Your task to perform on an android device: toggle translation in the chrome app Image 0: 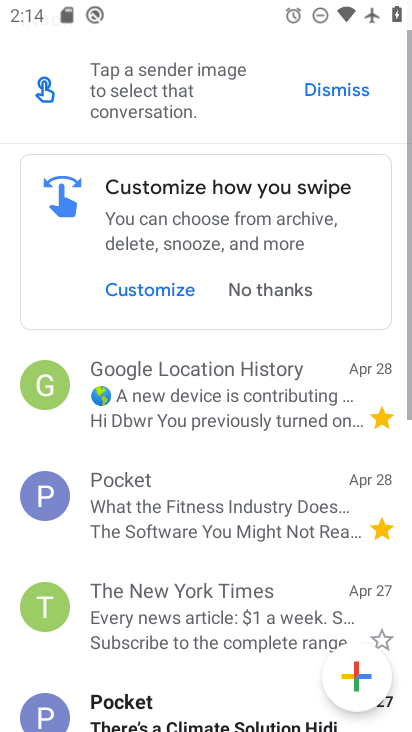
Step 0: press home button
Your task to perform on an android device: toggle translation in the chrome app Image 1: 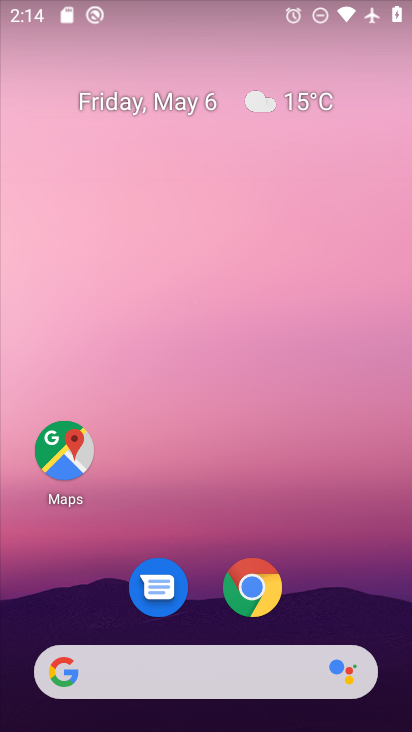
Step 1: click (266, 589)
Your task to perform on an android device: toggle translation in the chrome app Image 2: 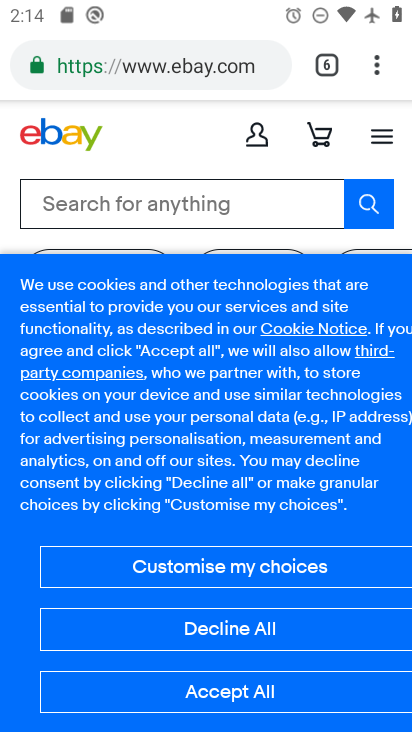
Step 2: click (374, 65)
Your task to perform on an android device: toggle translation in the chrome app Image 3: 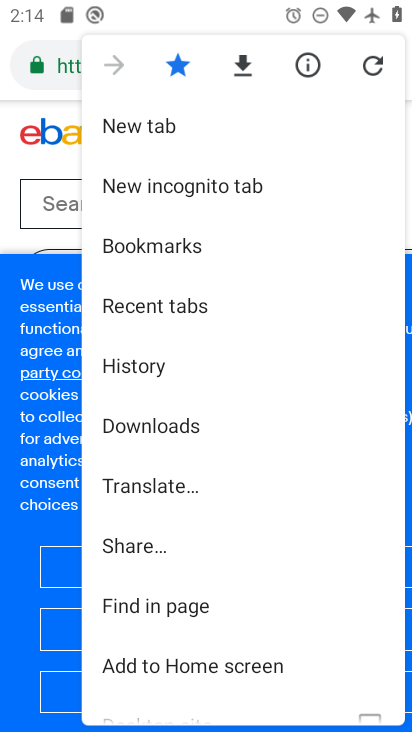
Step 3: drag from (236, 589) to (186, 186)
Your task to perform on an android device: toggle translation in the chrome app Image 4: 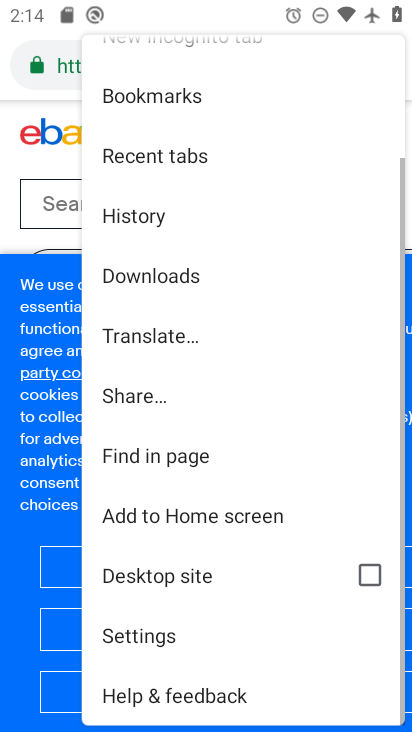
Step 4: click (197, 629)
Your task to perform on an android device: toggle translation in the chrome app Image 5: 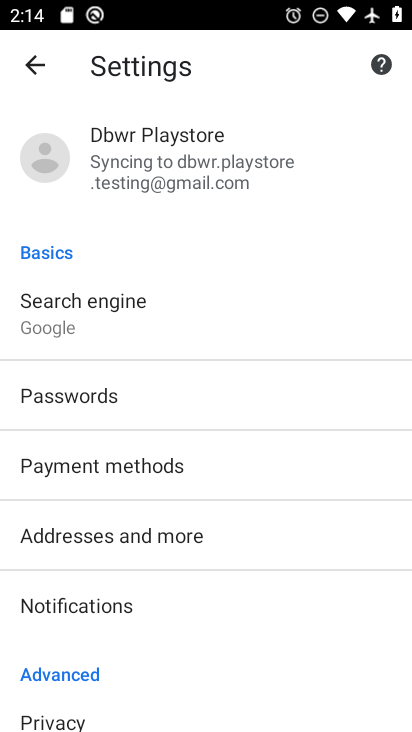
Step 5: drag from (233, 668) to (161, 194)
Your task to perform on an android device: toggle translation in the chrome app Image 6: 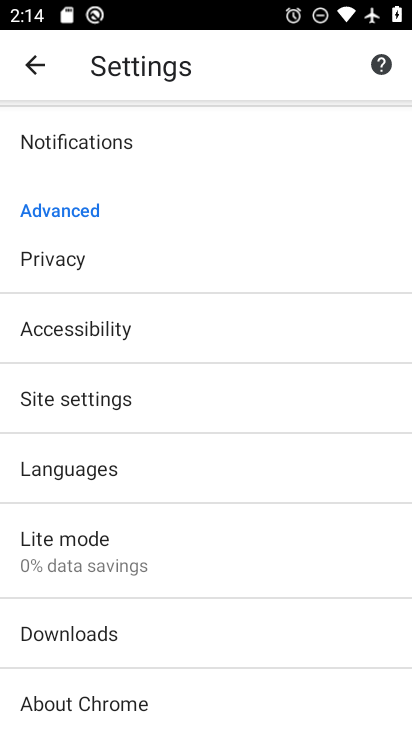
Step 6: click (112, 468)
Your task to perform on an android device: toggle translation in the chrome app Image 7: 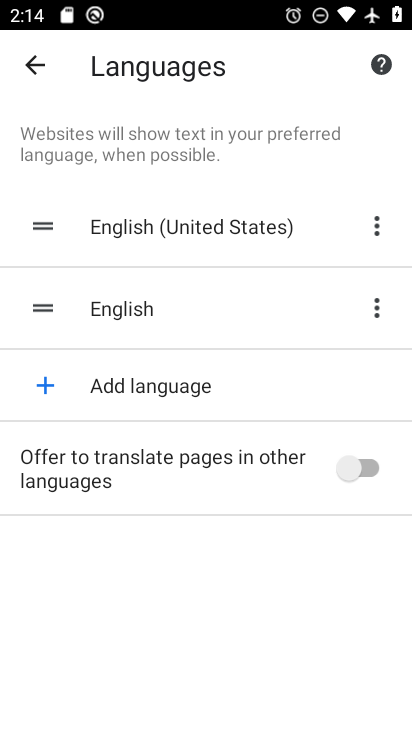
Step 7: click (352, 471)
Your task to perform on an android device: toggle translation in the chrome app Image 8: 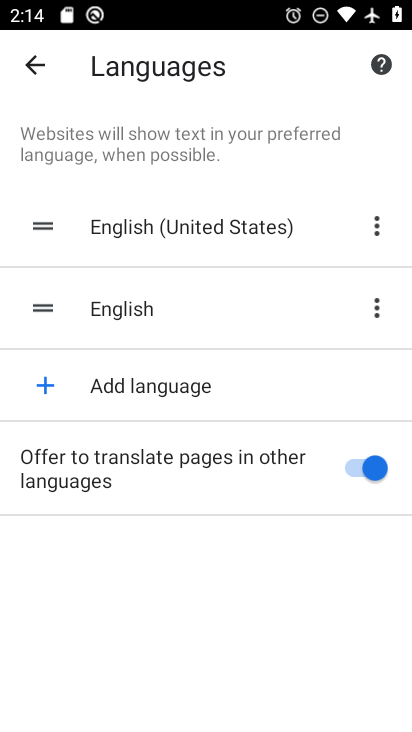
Step 8: task complete